Your task to perform on an android device: Open Chrome and go to settings Image 0: 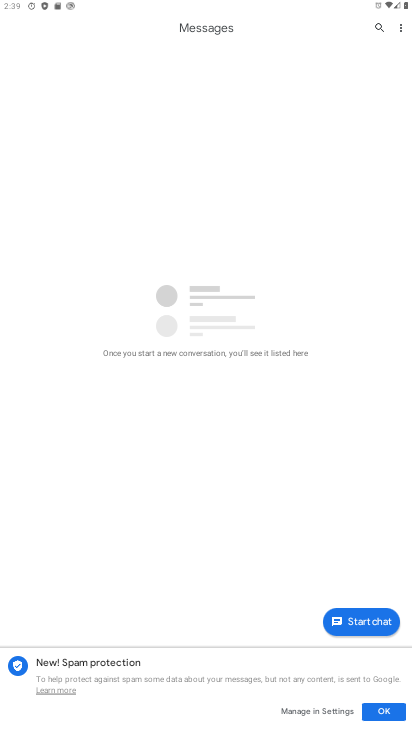
Step 0: press home button
Your task to perform on an android device: Open Chrome and go to settings Image 1: 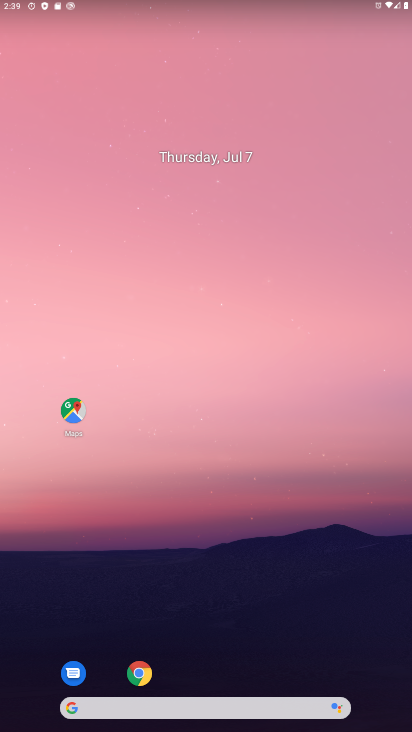
Step 1: drag from (217, 674) to (202, 98)
Your task to perform on an android device: Open Chrome and go to settings Image 2: 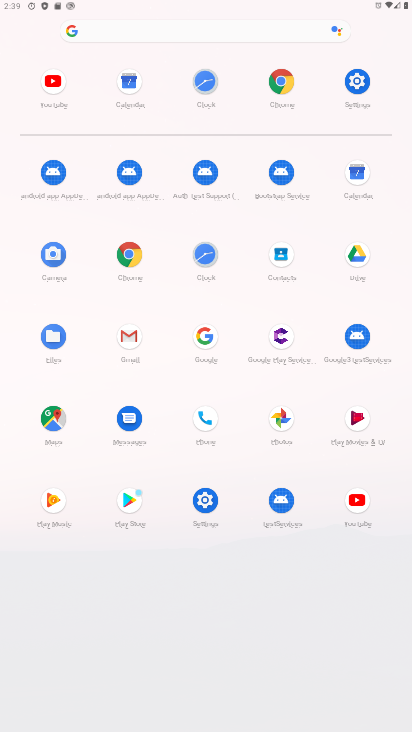
Step 2: click (122, 250)
Your task to perform on an android device: Open Chrome and go to settings Image 3: 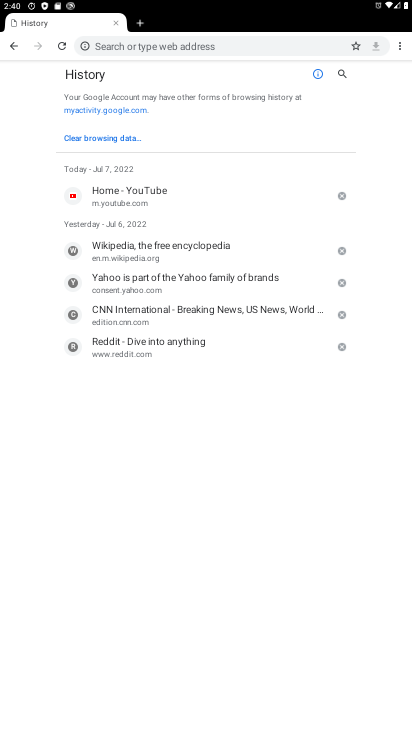
Step 3: task complete